Your task to perform on an android device: Open Chrome and go to settings Image 0: 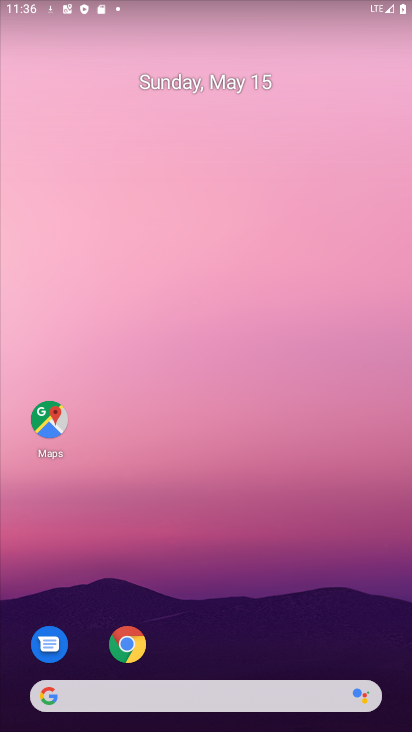
Step 0: drag from (237, 726) to (187, 331)
Your task to perform on an android device: Open Chrome and go to settings Image 1: 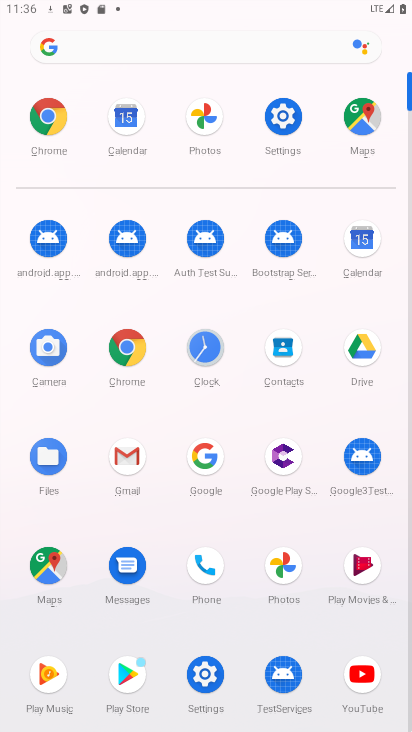
Step 1: click (276, 138)
Your task to perform on an android device: Open Chrome and go to settings Image 2: 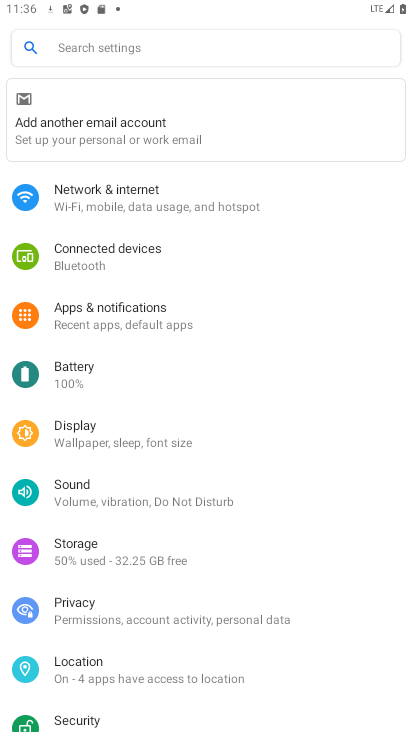
Step 2: press back button
Your task to perform on an android device: Open Chrome and go to settings Image 3: 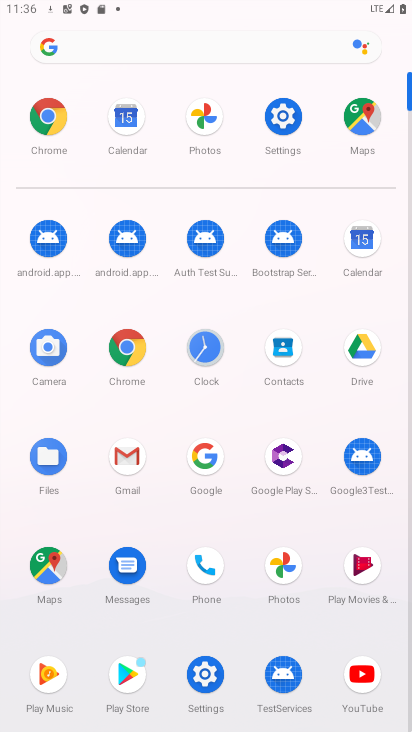
Step 3: click (132, 346)
Your task to perform on an android device: Open Chrome and go to settings Image 4: 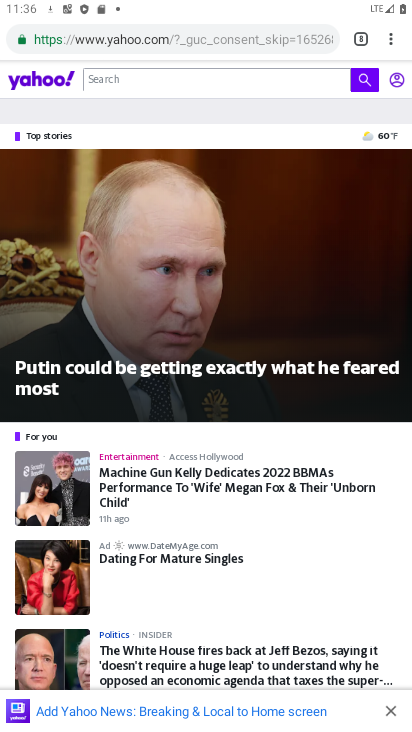
Step 4: click (386, 32)
Your task to perform on an android device: Open Chrome and go to settings Image 5: 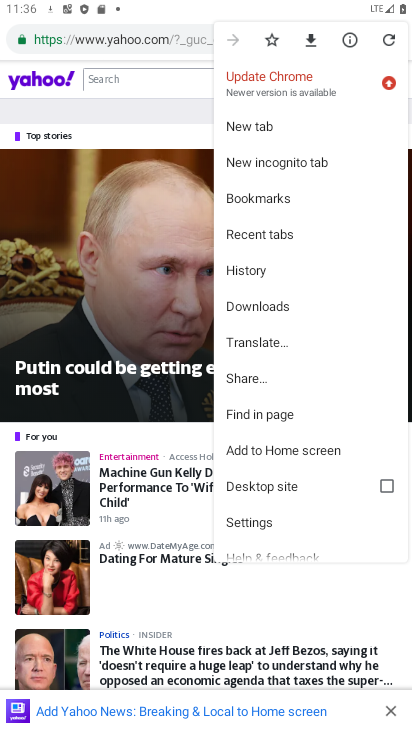
Step 5: click (258, 516)
Your task to perform on an android device: Open Chrome and go to settings Image 6: 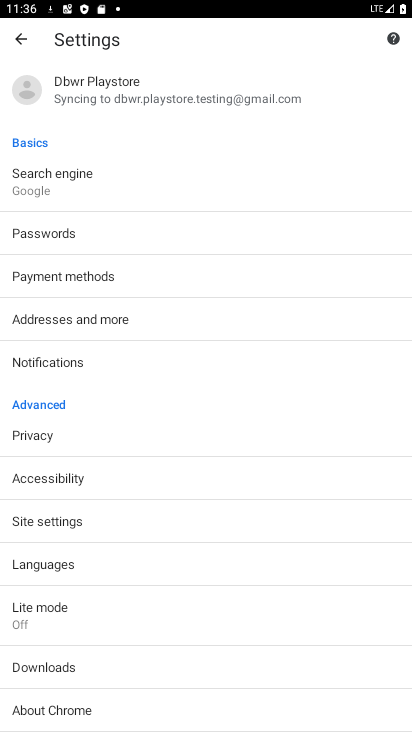
Step 6: task complete